Your task to perform on an android device: toggle javascript in the chrome app Image 0: 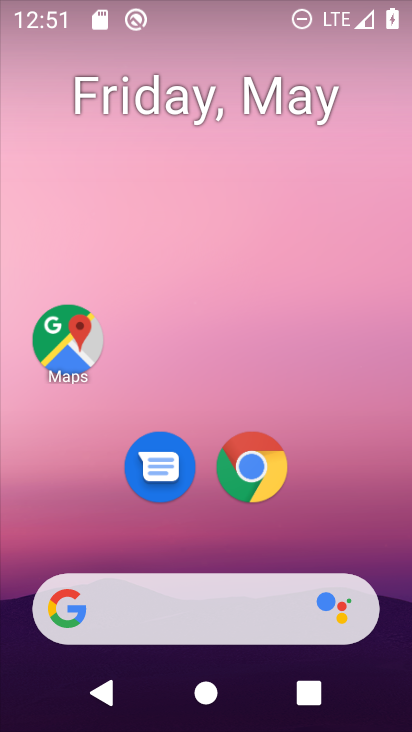
Step 0: drag from (296, 613) to (289, 18)
Your task to perform on an android device: toggle javascript in the chrome app Image 1: 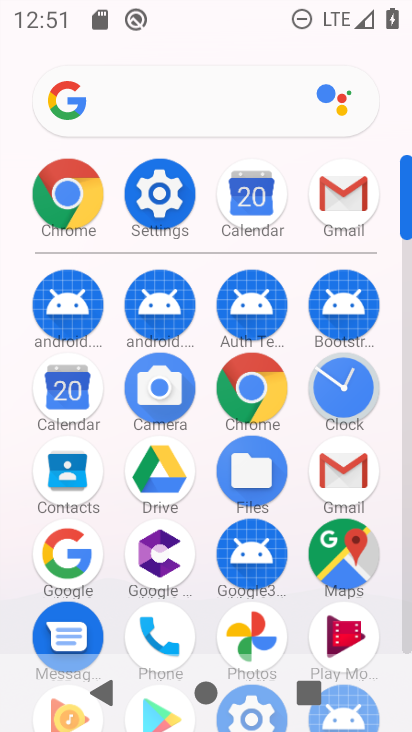
Step 1: click (248, 380)
Your task to perform on an android device: toggle javascript in the chrome app Image 2: 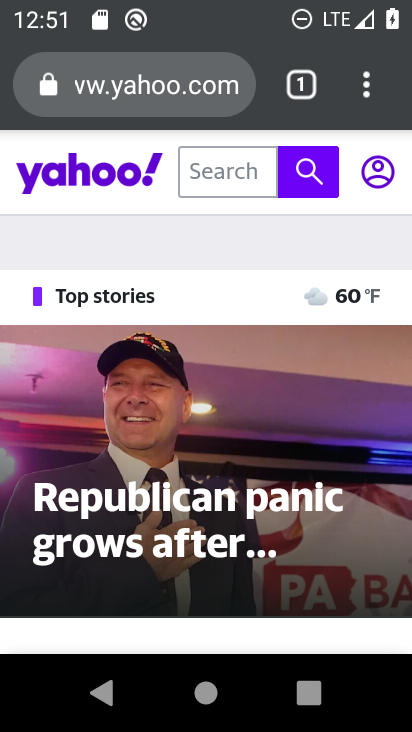
Step 2: drag from (360, 79) to (150, 524)
Your task to perform on an android device: toggle javascript in the chrome app Image 3: 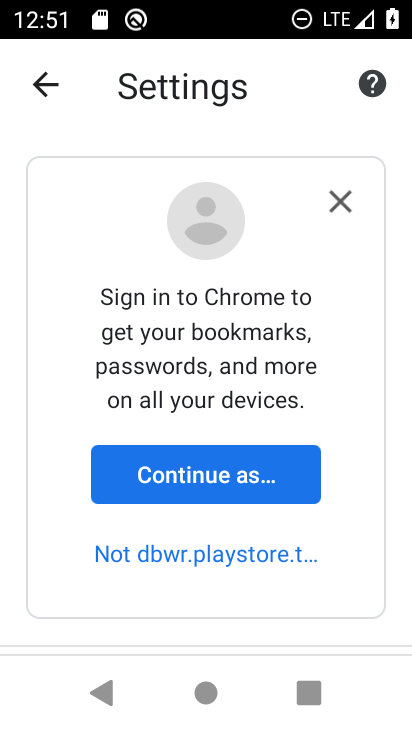
Step 3: drag from (93, 652) to (119, 55)
Your task to perform on an android device: toggle javascript in the chrome app Image 4: 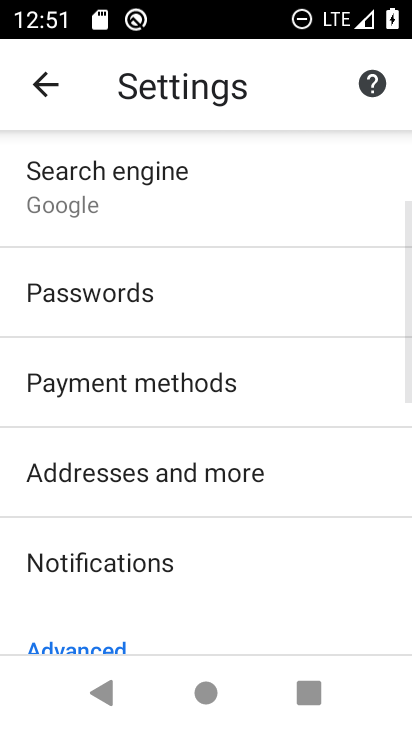
Step 4: drag from (87, 586) to (124, 58)
Your task to perform on an android device: toggle javascript in the chrome app Image 5: 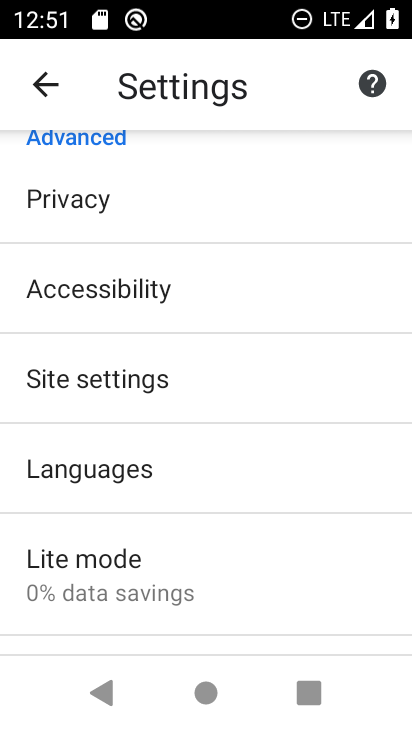
Step 5: click (85, 376)
Your task to perform on an android device: toggle javascript in the chrome app Image 6: 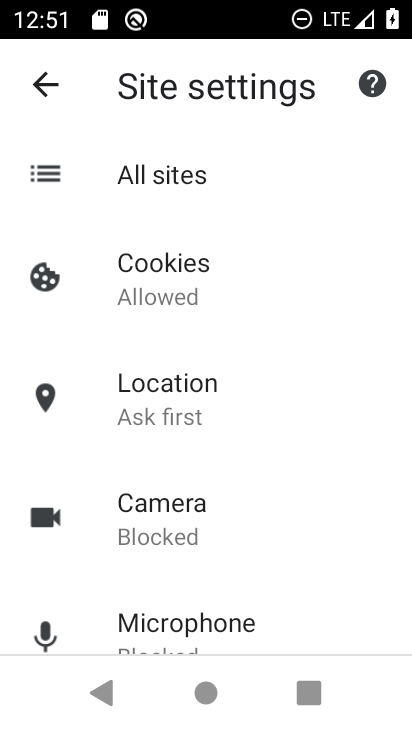
Step 6: drag from (257, 618) to (327, 200)
Your task to perform on an android device: toggle javascript in the chrome app Image 7: 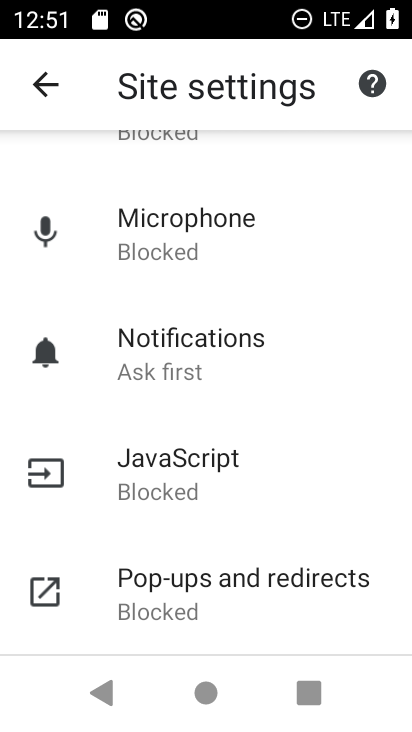
Step 7: click (205, 467)
Your task to perform on an android device: toggle javascript in the chrome app Image 8: 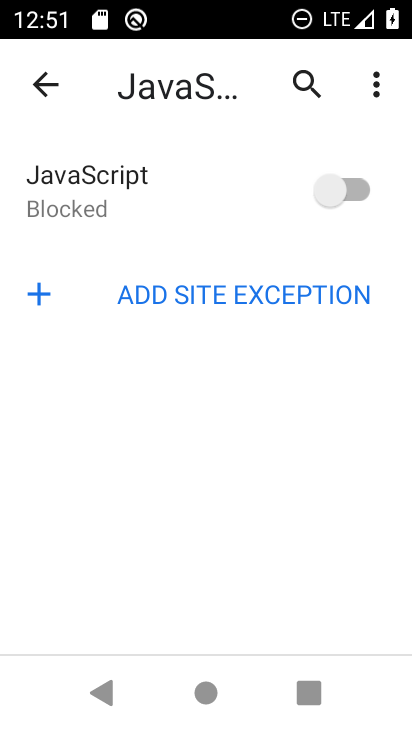
Step 8: click (352, 193)
Your task to perform on an android device: toggle javascript in the chrome app Image 9: 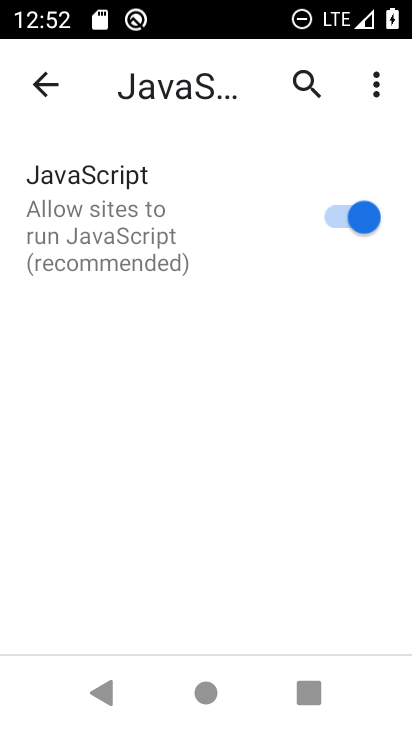
Step 9: task complete